Your task to perform on an android device: set default search engine in the chrome app Image 0: 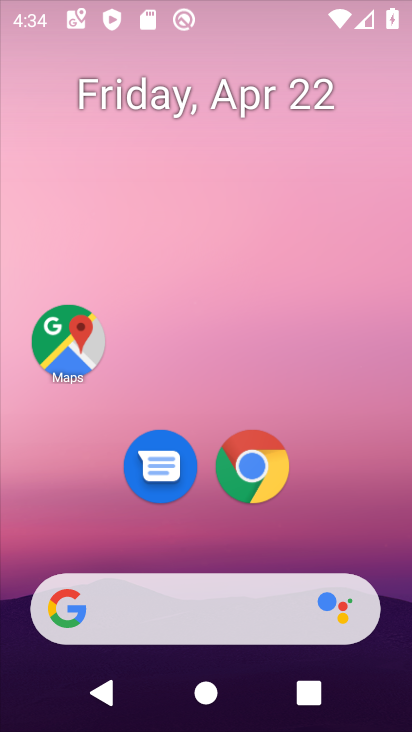
Step 0: drag from (364, 533) to (294, 190)
Your task to perform on an android device: set default search engine in the chrome app Image 1: 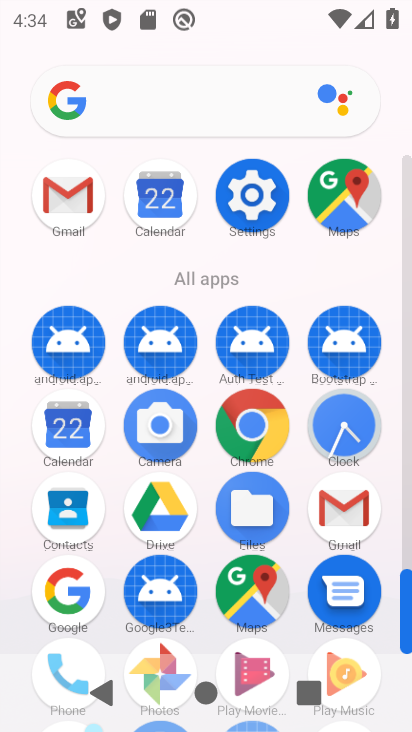
Step 1: click (269, 431)
Your task to perform on an android device: set default search engine in the chrome app Image 2: 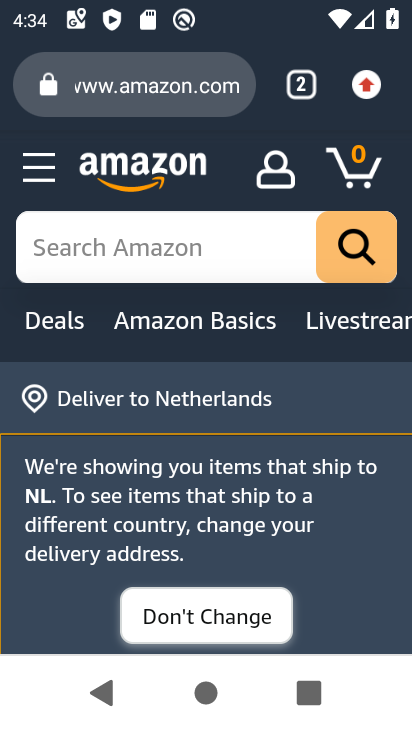
Step 2: click (362, 123)
Your task to perform on an android device: set default search engine in the chrome app Image 3: 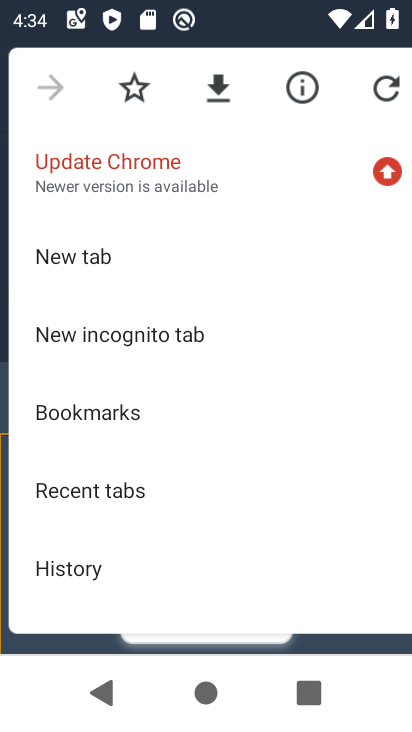
Step 3: drag from (221, 557) to (221, 176)
Your task to perform on an android device: set default search engine in the chrome app Image 4: 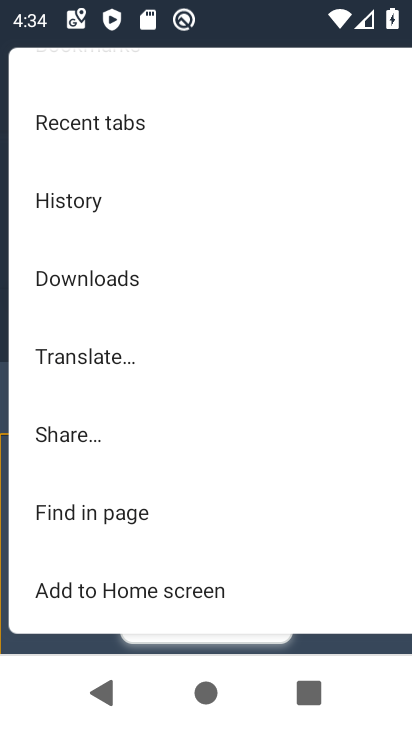
Step 4: drag from (217, 544) to (219, 290)
Your task to perform on an android device: set default search engine in the chrome app Image 5: 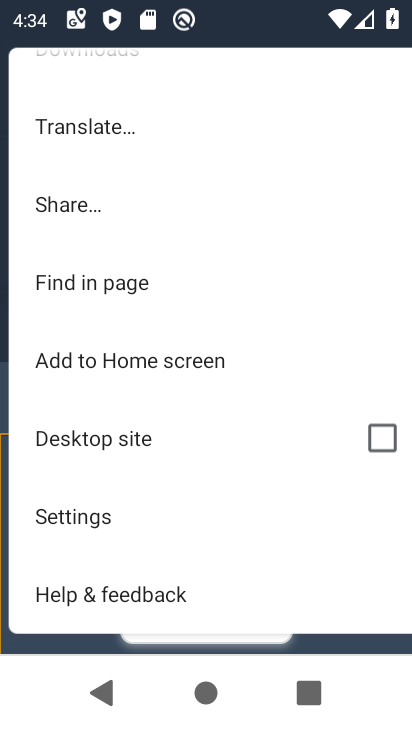
Step 5: click (182, 508)
Your task to perform on an android device: set default search engine in the chrome app Image 6: 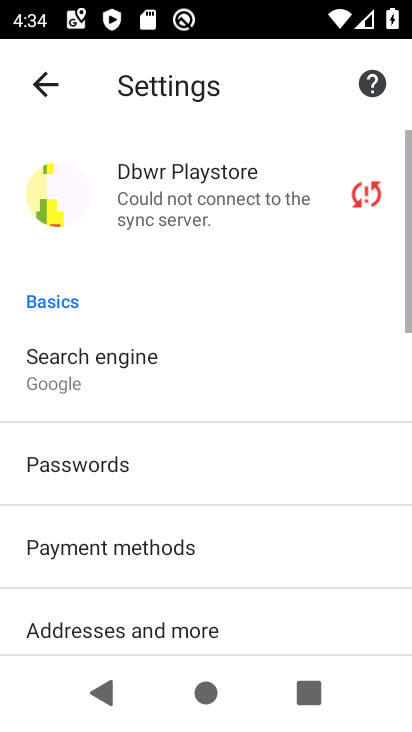
Step 6: click (189, 403)
Your task to perform on an android device: set default search engine in the chrome app Image 7: 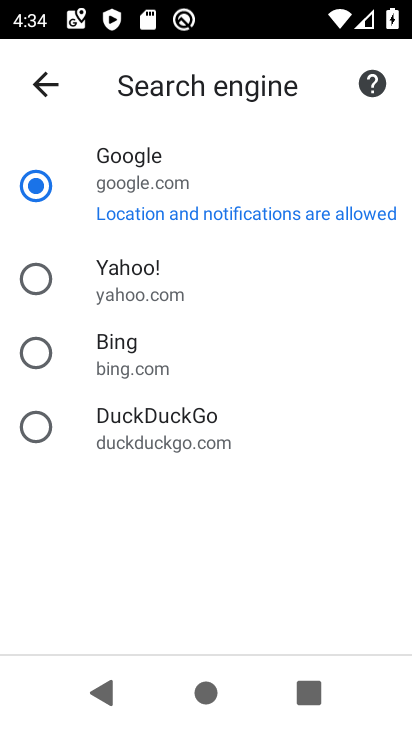
Step 7: click (167, 298)
Your task to perform on an android device: set default search engine in the chrome app Image 8: 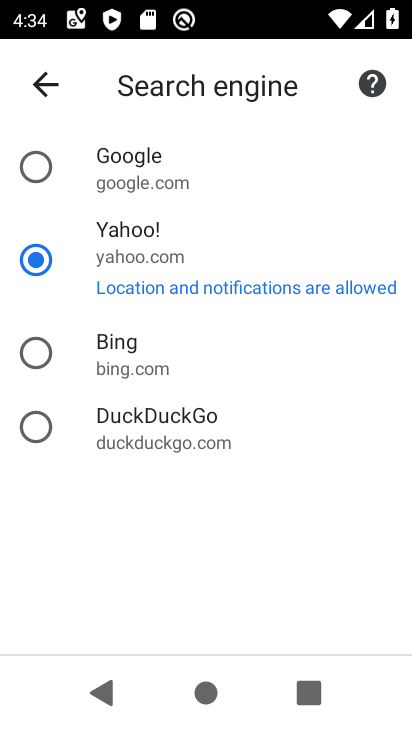
Step 8: task complete